Your task to perform on an android device: toggle airplane mode Image 0: 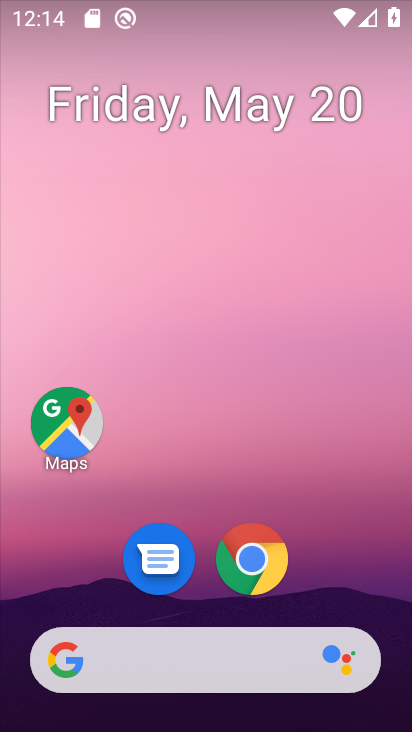
Step 0: drag from (335, 604) to (297, 201)
Your task to perform on an android device: toggle airplane mode Image 1: 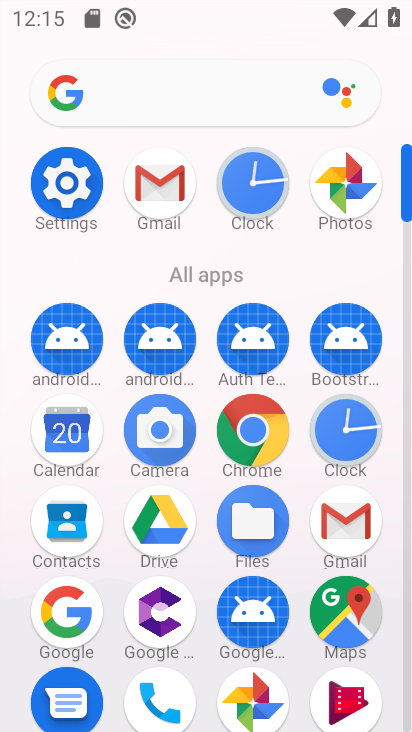
Step 1: click (74, 183)
Your task to perform on an android device: toggle airplane mode Image 2: 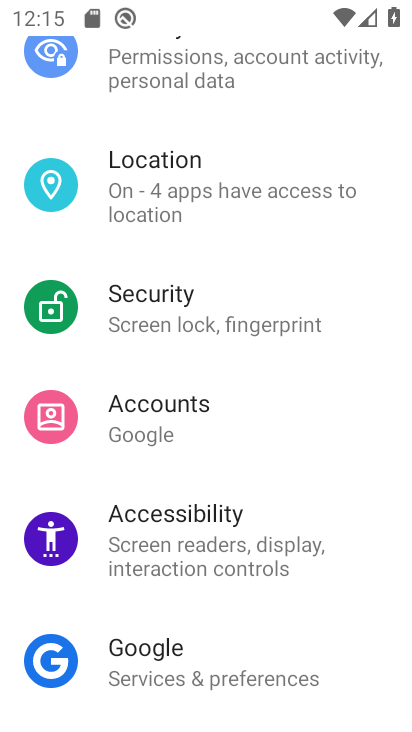
Step 2: drag from (221, 127) to (245, 655)
Your task to perform on an android device: toggle airplane mode Image 3: 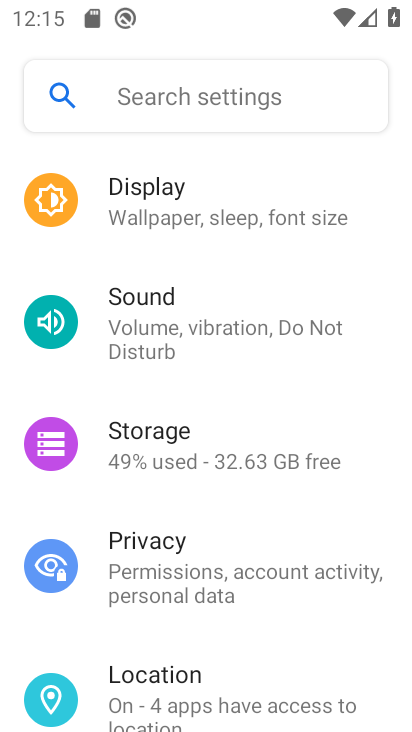
Step 3: drag from (237, 268) to (238, 715)
Your task to perform on an android device: toggle airplane mode Image 4: 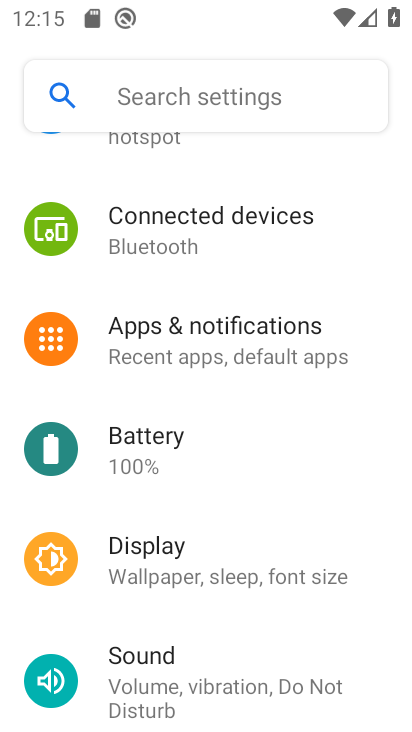
Step 4: drag from (203, 275) to (212, 696)
Your task to perform on an android device: toggle airplane mode Image 5: 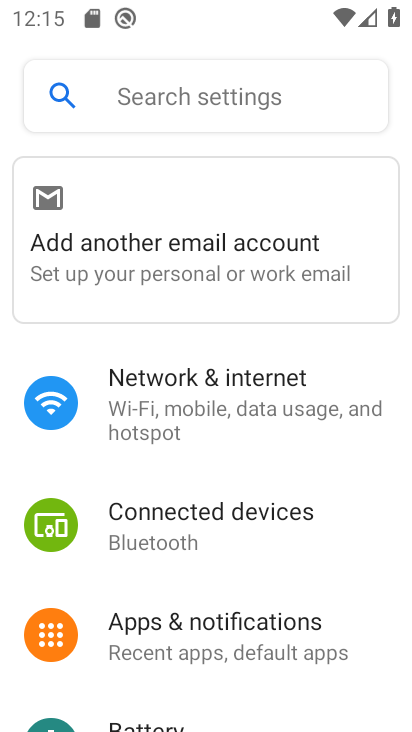
Step 5: click (205, 441)
Your task to perform on an android device: toggle airplane mode Image 6: 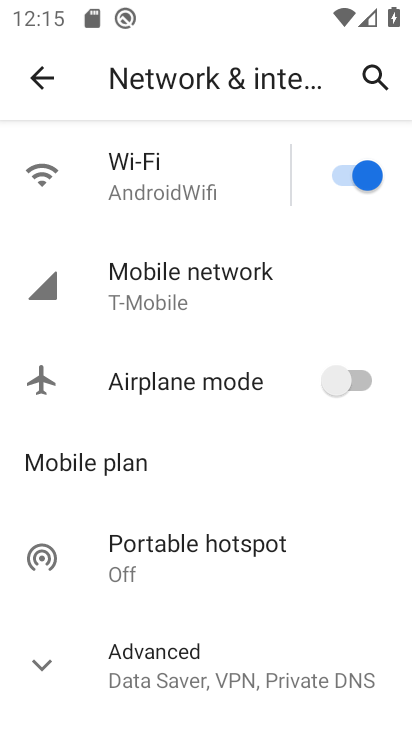
Step 6: click (360, 393)
Your task to perform on an android device: toggle airplane mode Image 7: 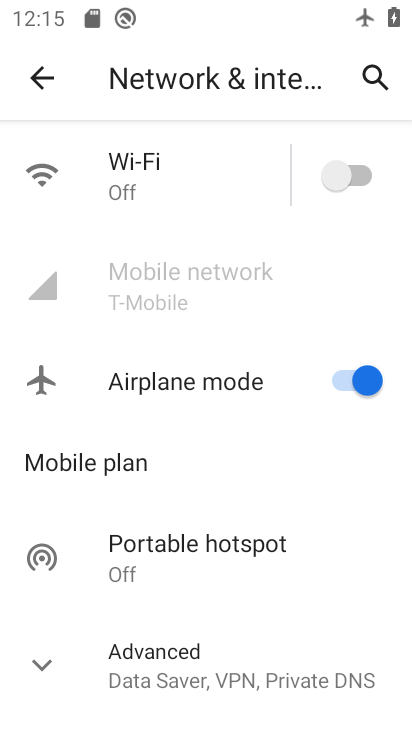
Step 7: task complete